Your task to perform on an android device: change timer sound Image 0: 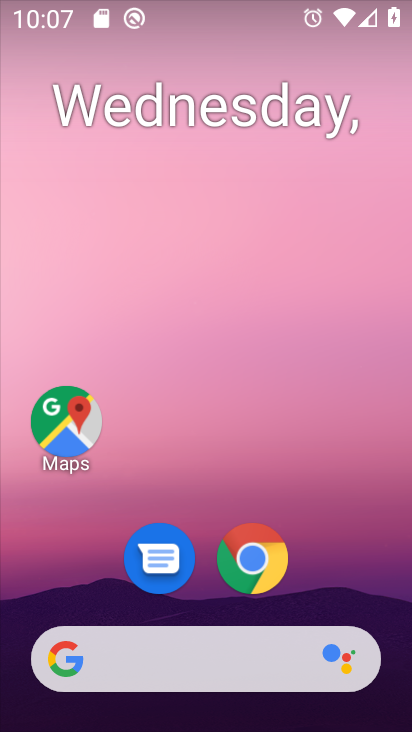
Step 0: drag from (351, 567) to (381, 107)
Your task to perform on an android device: change timer sound Image 1: 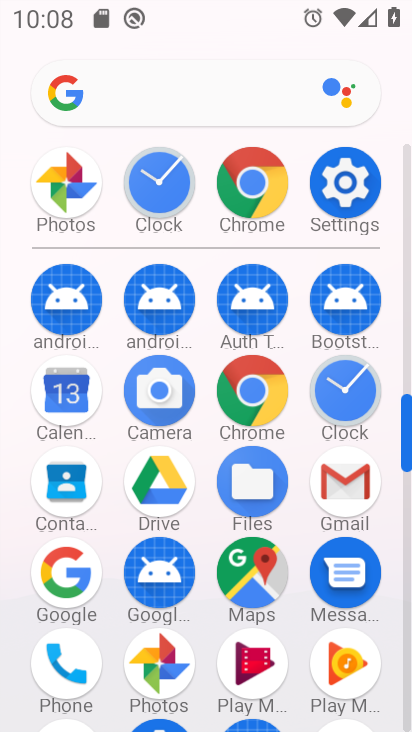
Step 1: click (350, 398)
Your task to perform on an android device: change timer sound Image 2: 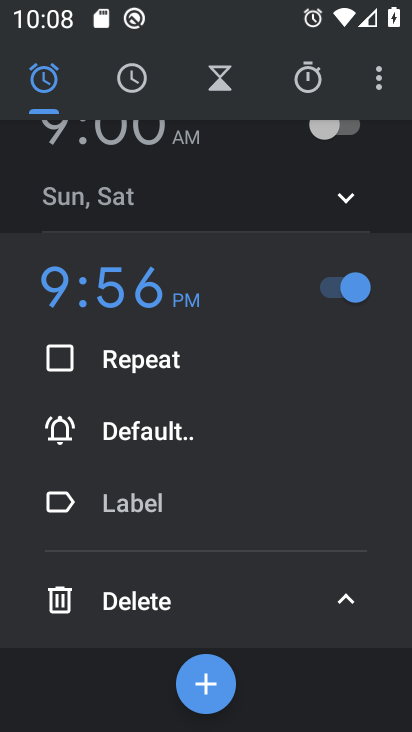
Step 2: click (380, 88)
Your task to perform on an android device: change timer sound Image 3: 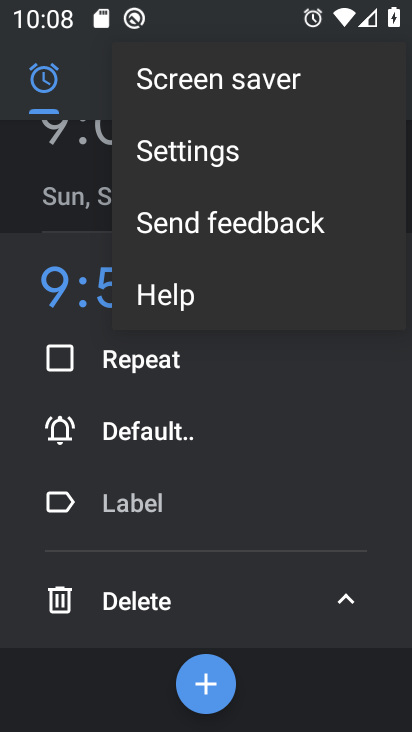
Step 3: click (289, 163)
Your task to perform on an android device: change timer sound Image 4: 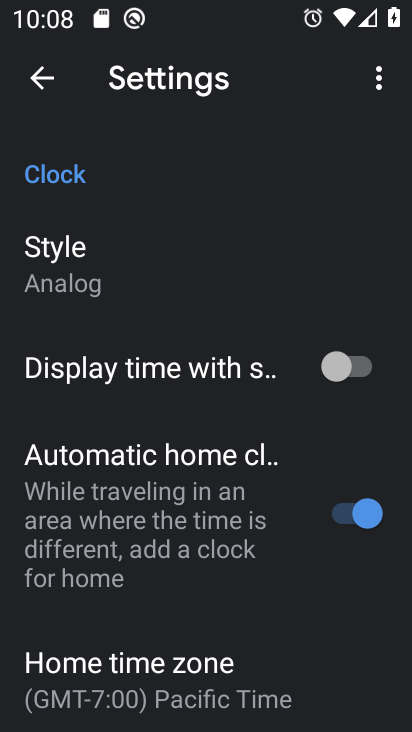
Step 4: drag from (280, 519) to (300, 437)
Your task to perform on an android device: change timer sound Image 5: 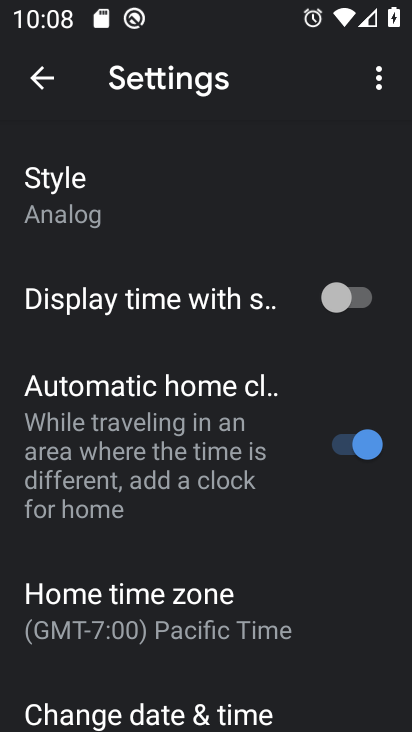
Step 5: drag from (297, 521) to (310, 441)
Your task to perform on an android device: change timer sound Image 6: 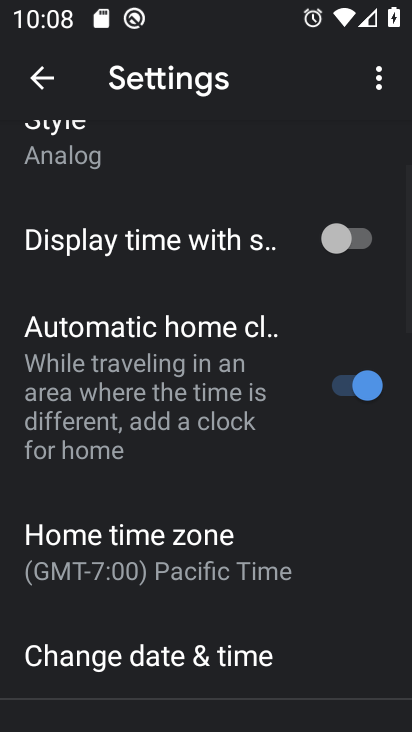
Step 6: drag from (305, 522) to (313, 419)
Your task to perform on an android device: change timer sound Image 7: 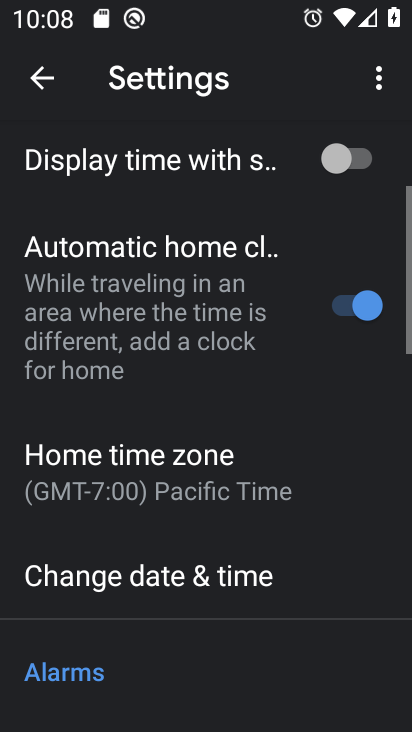
Step 7: drag from (305, 511) to (315, 419)
Your task to perform on an android device: change timer sound Image 8: 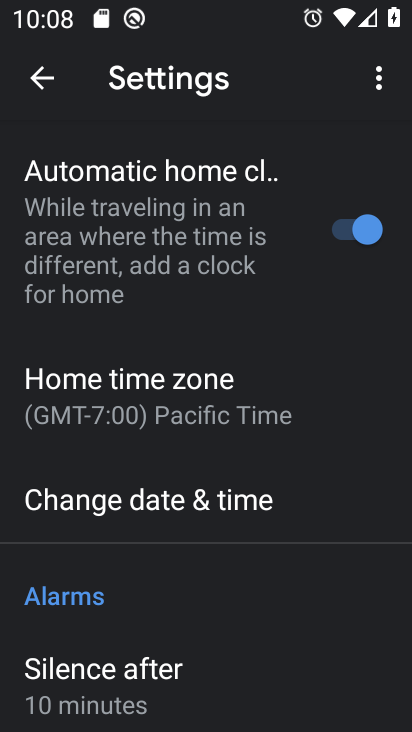
Step 8: drag from (301, 507) to (306, 431)
Your task to perform on an android device: change timer sound Image 9: 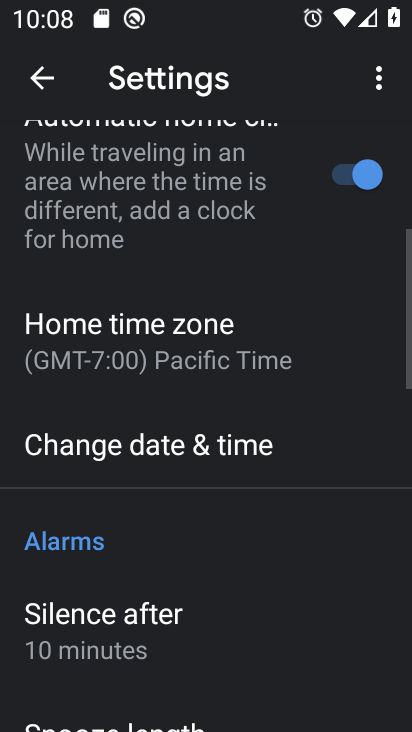
Step 9: drag from (308, 506) to (327, 427)
Your task to perform on an android device: change timer sound Image 10: 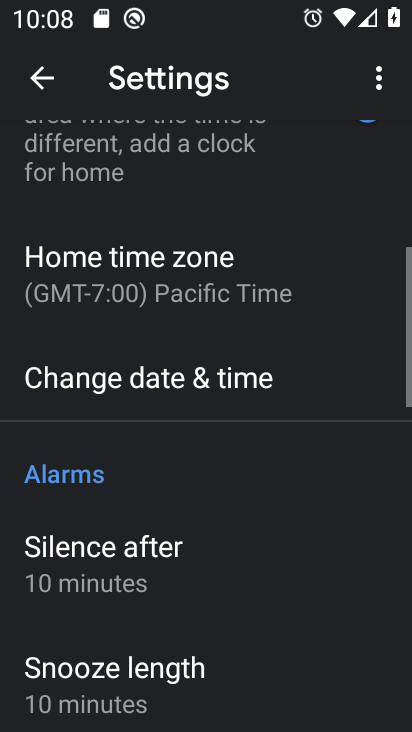
Step 10: drag from (309, 509) to (356, 297)
Your task to perform on an android device: change timer sound Image 11: 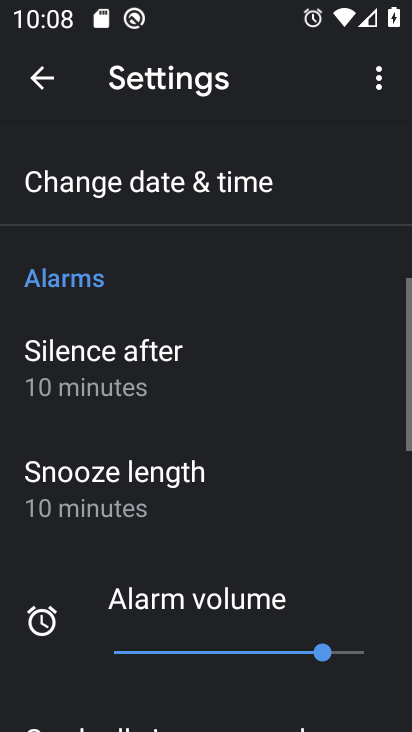
Step 11: drag from (329, 461) to (369, 282)
Your task to perform on an android device: change timer sound Image 12: 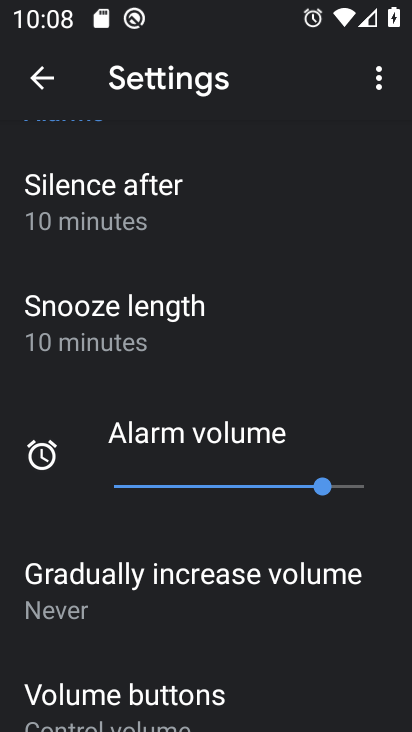
Step 12: drag from (350, 535) to (382, 357)
Your task to perform on an android device: change timer sound Image 13: 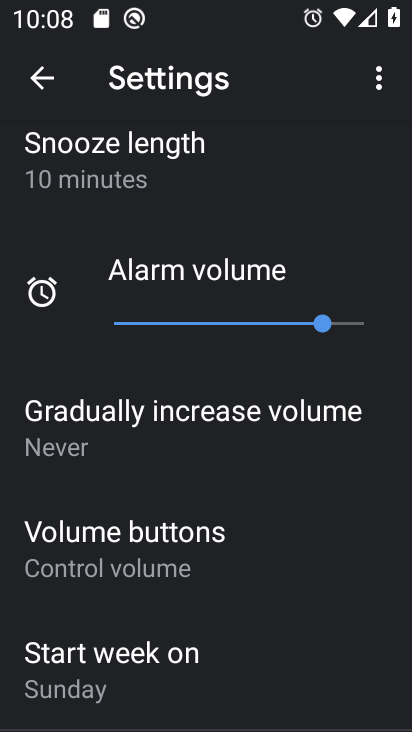
Step 13: drag from (343, 539) to (376, 314)
Your task to perform on an android device: change timer sound Image 14: 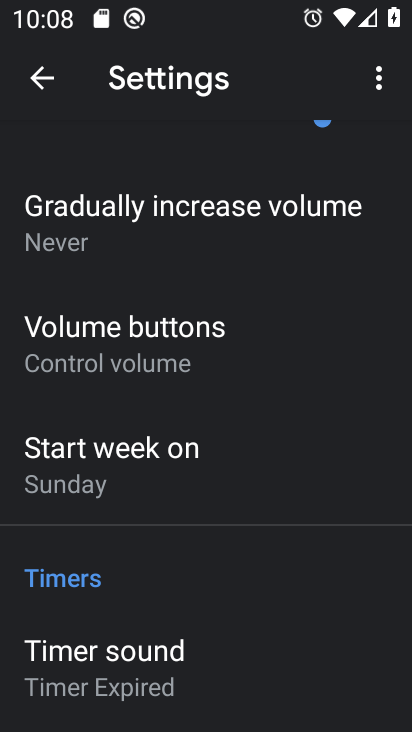
Step 14: drag from (323, 571) to (335, 349)
Your task to perform on an android device: change timer sound Image 15: 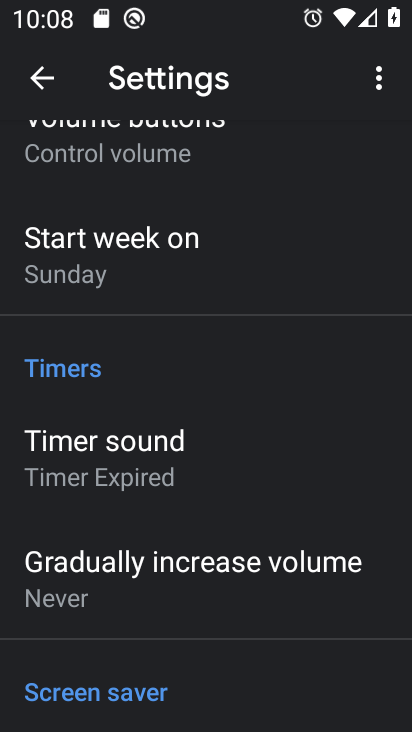
Step 15: drag from (318, 454) to (328, 326)
Your task to perform on an android device: change timer sound Image 16: 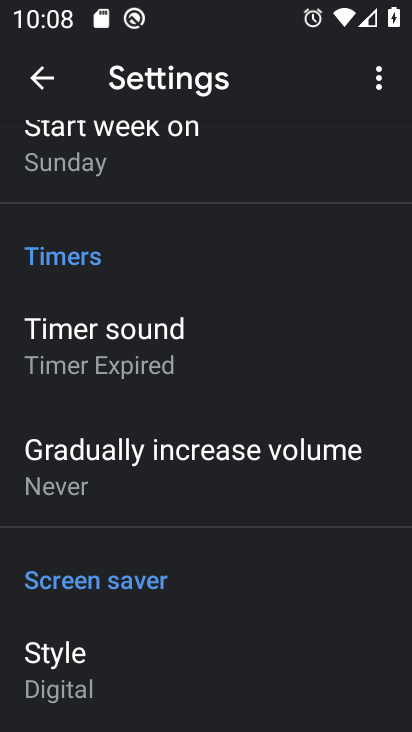
Step 16: drag from (347, 223) to (339, 341)
Your task to perform on an android device: change timer sound Image 17: 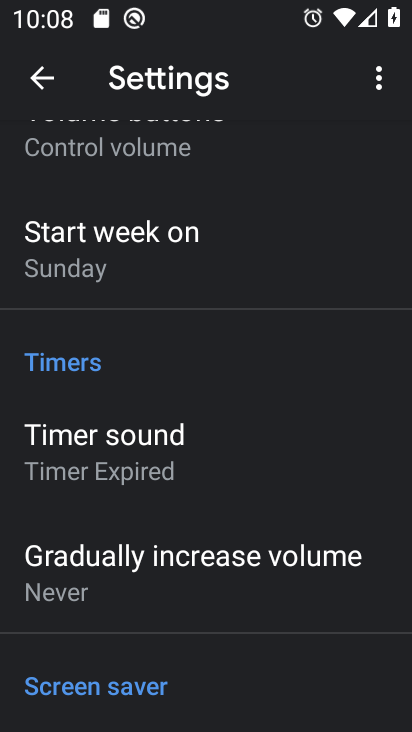
Step 17: drag from (346, 256) to (334, 337)
Your task to perform on an android device: change timer sound Image 18: 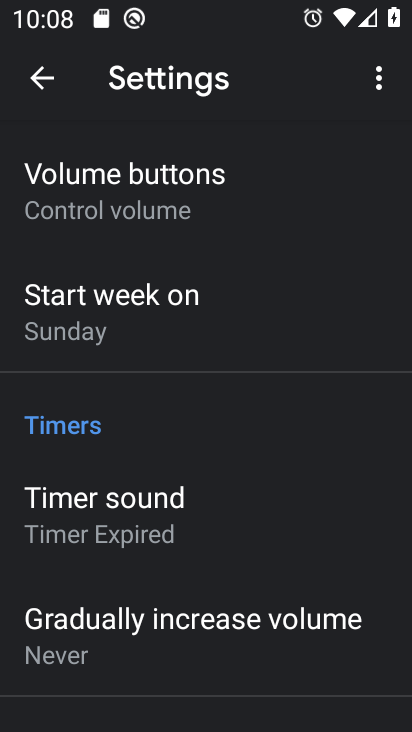
Step 18: click (212, 518)
Your task to perform on an android device: change timer sound Image 19: 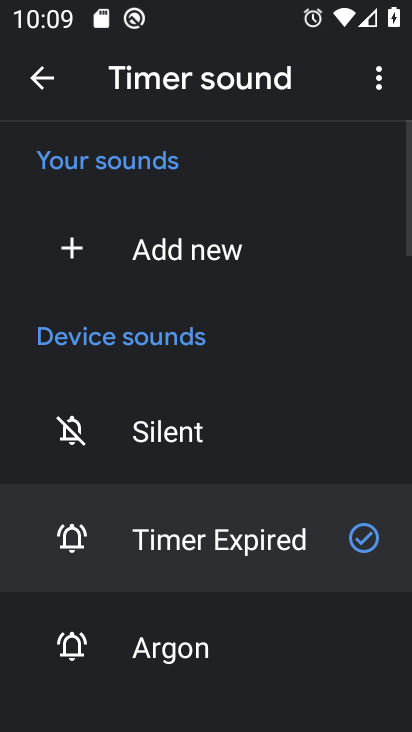
Step 19: click (227, 449)
Your task to perform on an android device: change timer sound Image 20: 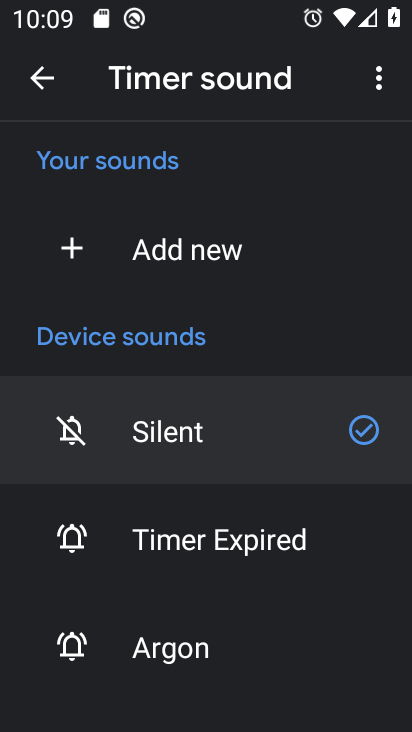
Step 20: task complete